Your task to perform on an android device: uninstall "Cash App" Image 0: 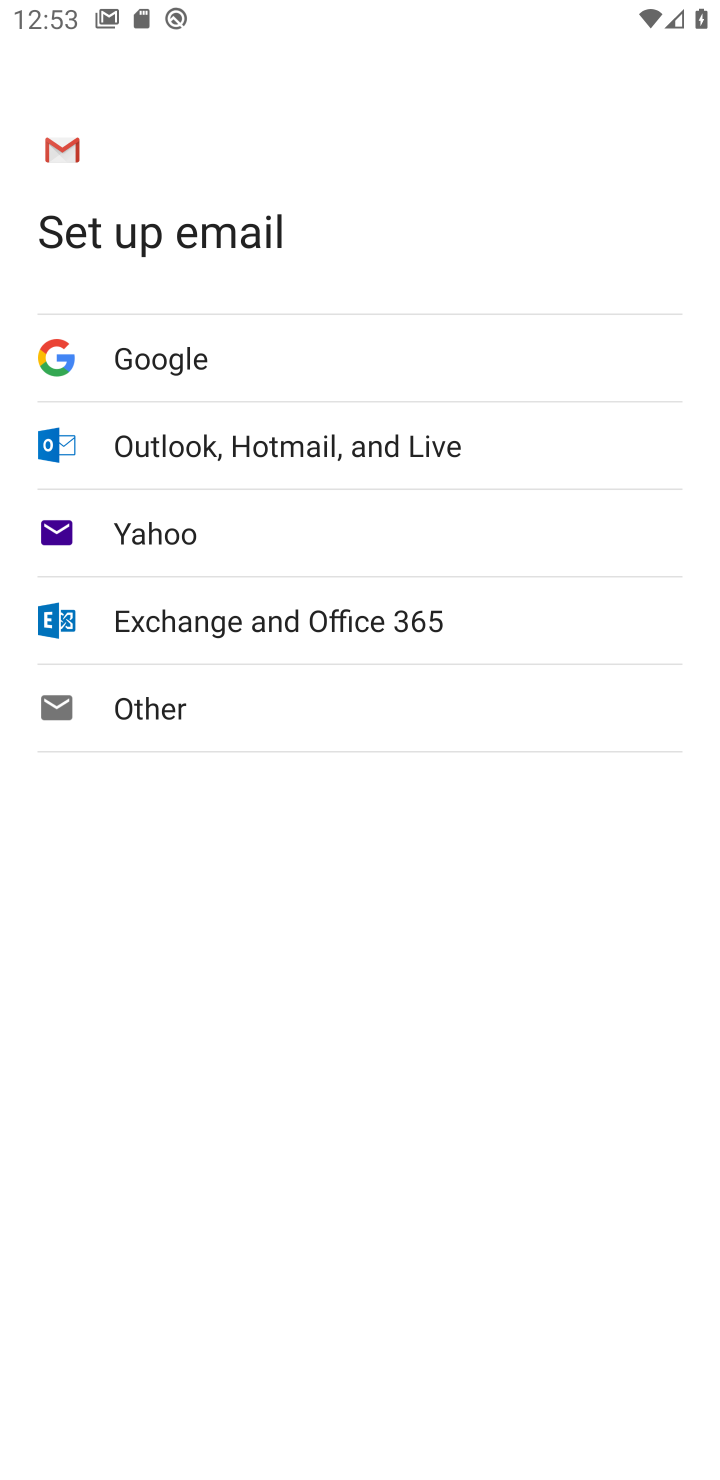
Step 0: press home button
Your task to perform on an android device: uninstall "Cash App" Image 1: 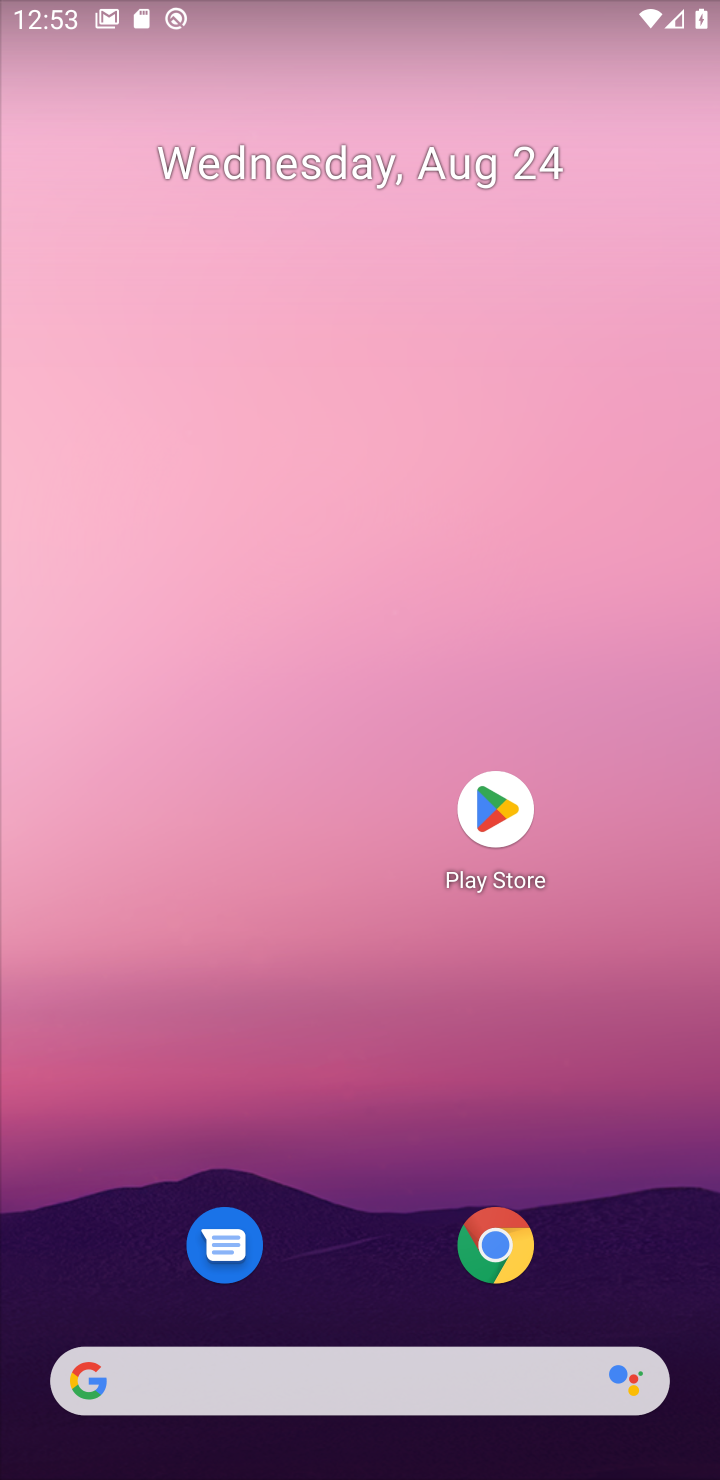
Step 1: click (483, 799)
Your task to perform on an android device: uninstall "Cash App" Image 2: 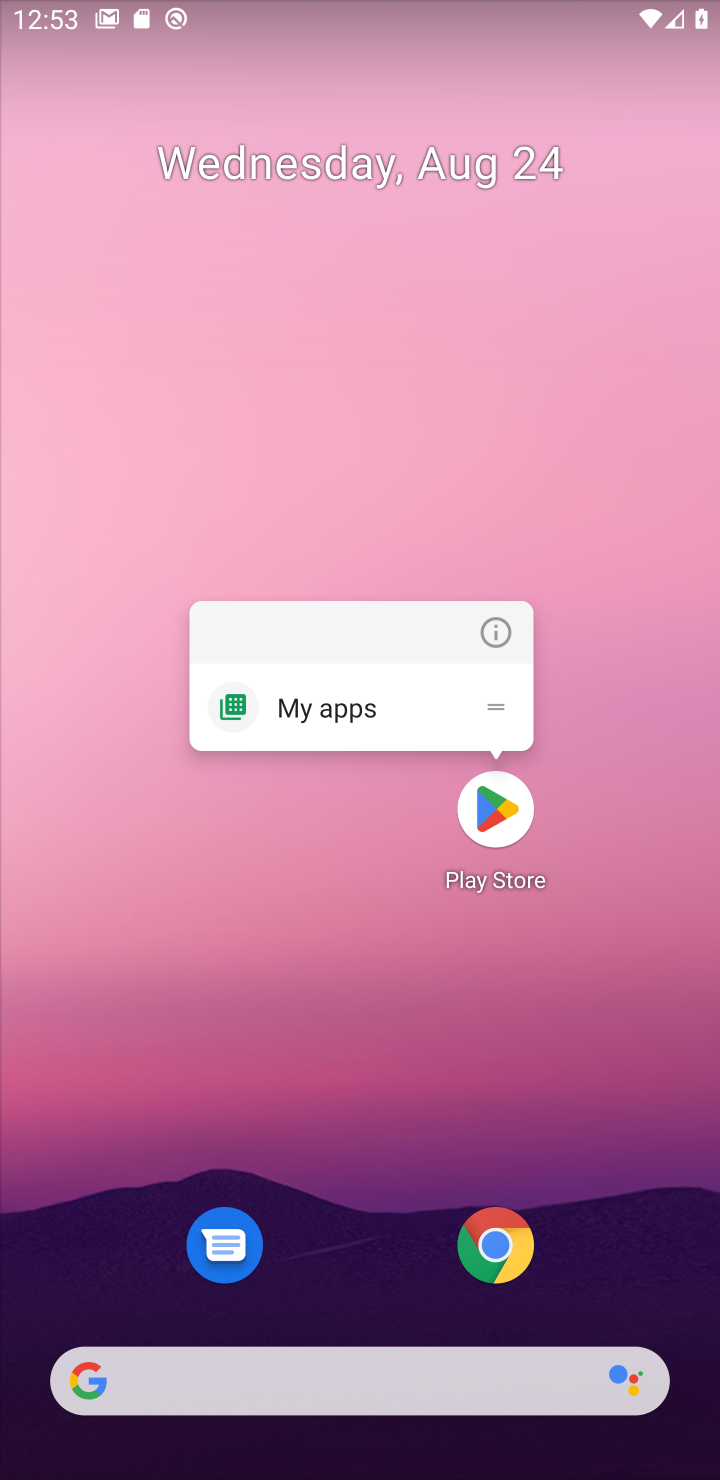
Step 2: click (485, 810)
Your task to perform on an android device: uninstall "Cash App" Image 3: 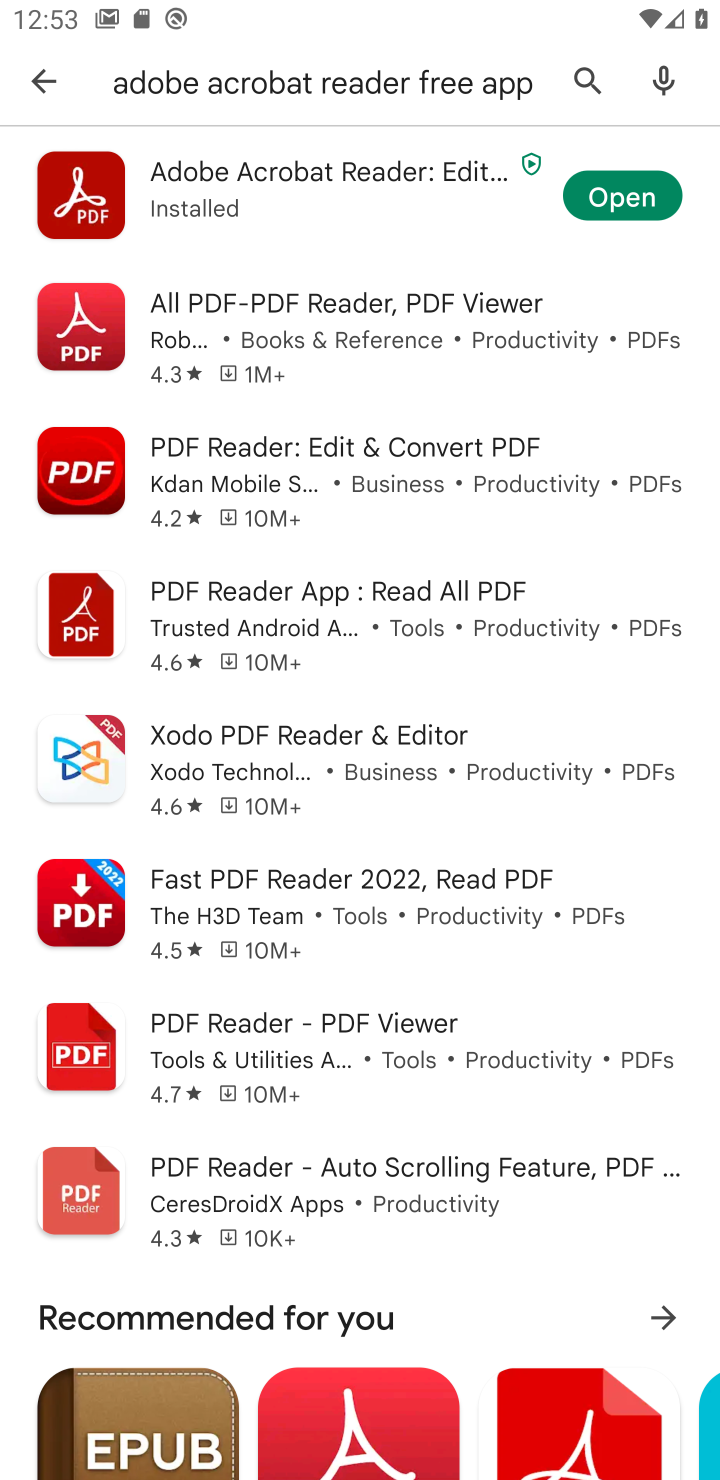
Step 3: click (586, 76)
Your task to perform on an android device: uninstall "Cash App" Image 4: 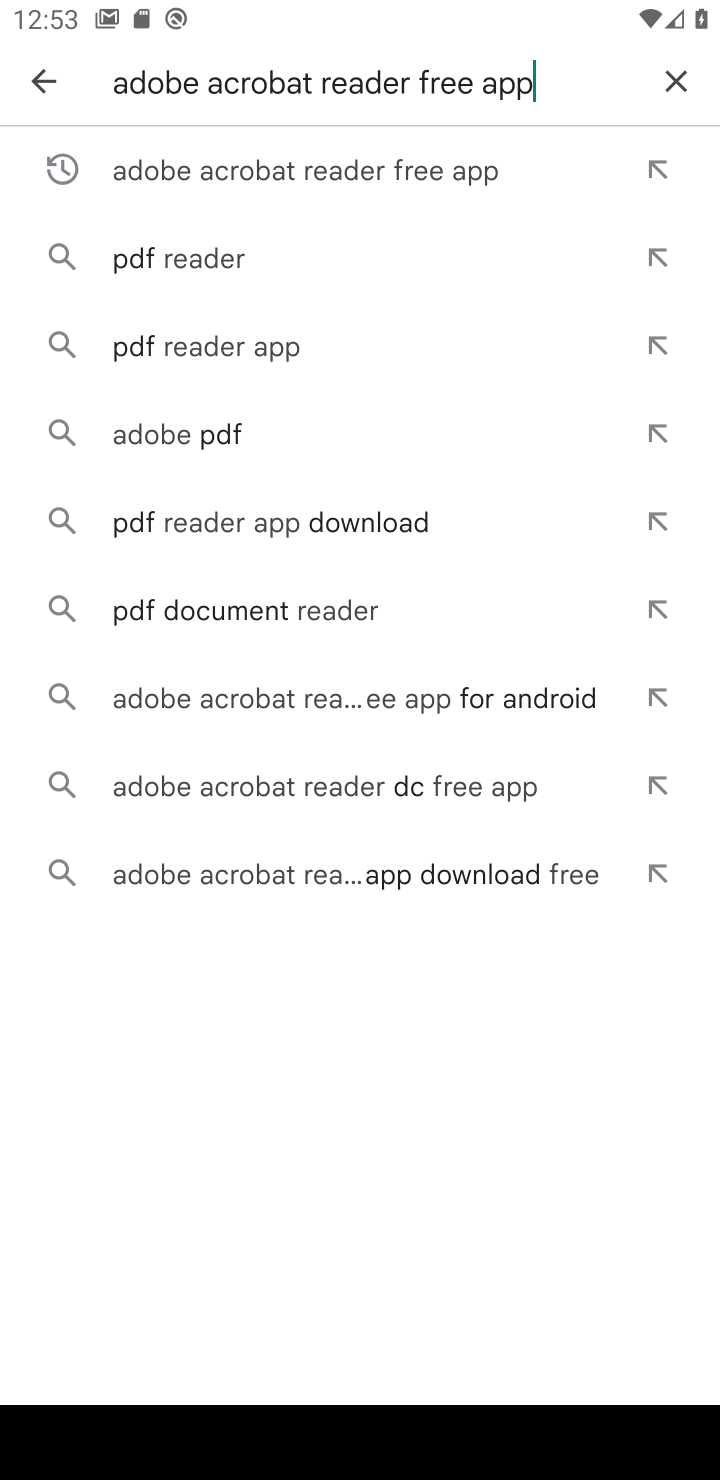
Step 4: click (684, 73)
Your task to perform on an android device: uninstall "Cash App" Image 5: 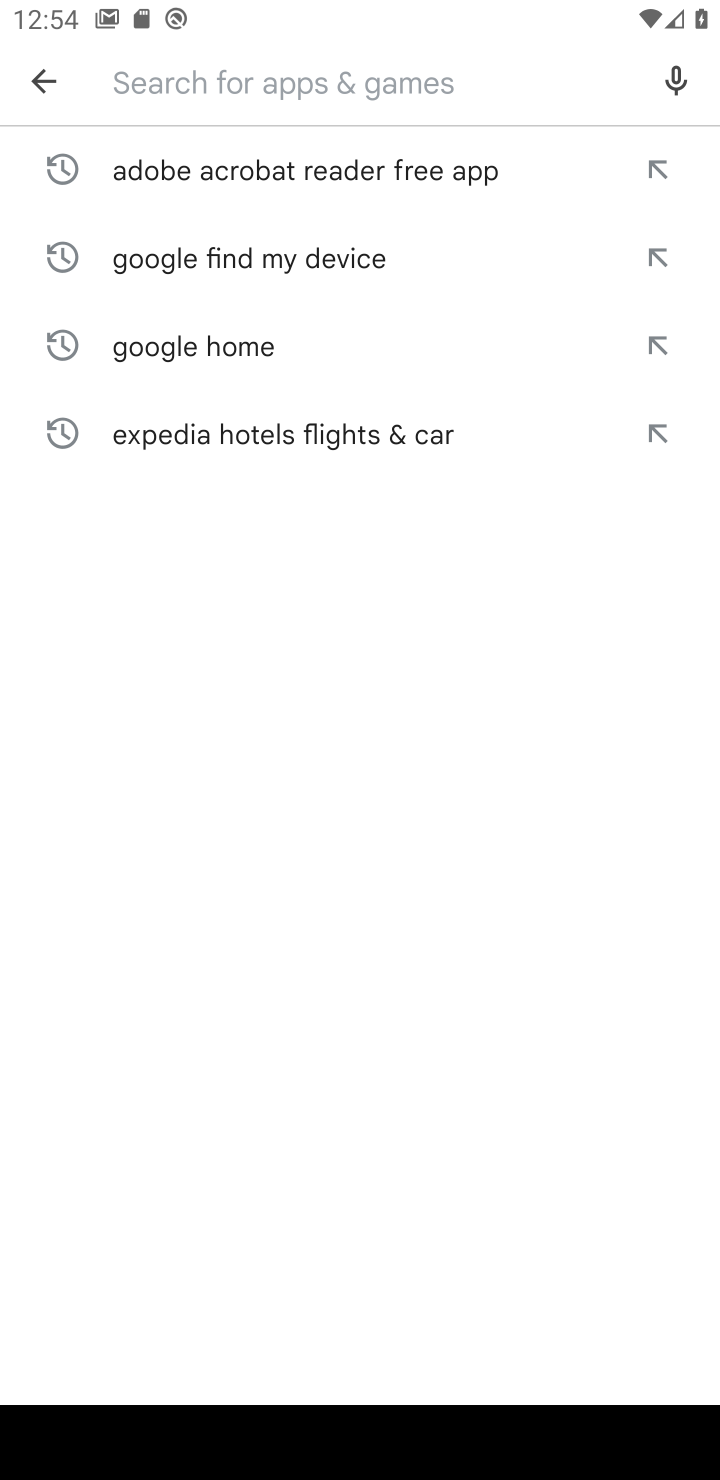
Step 5: type "Cash App"
Your task to perform on an android device: uninstall "Cash App" Image 6: 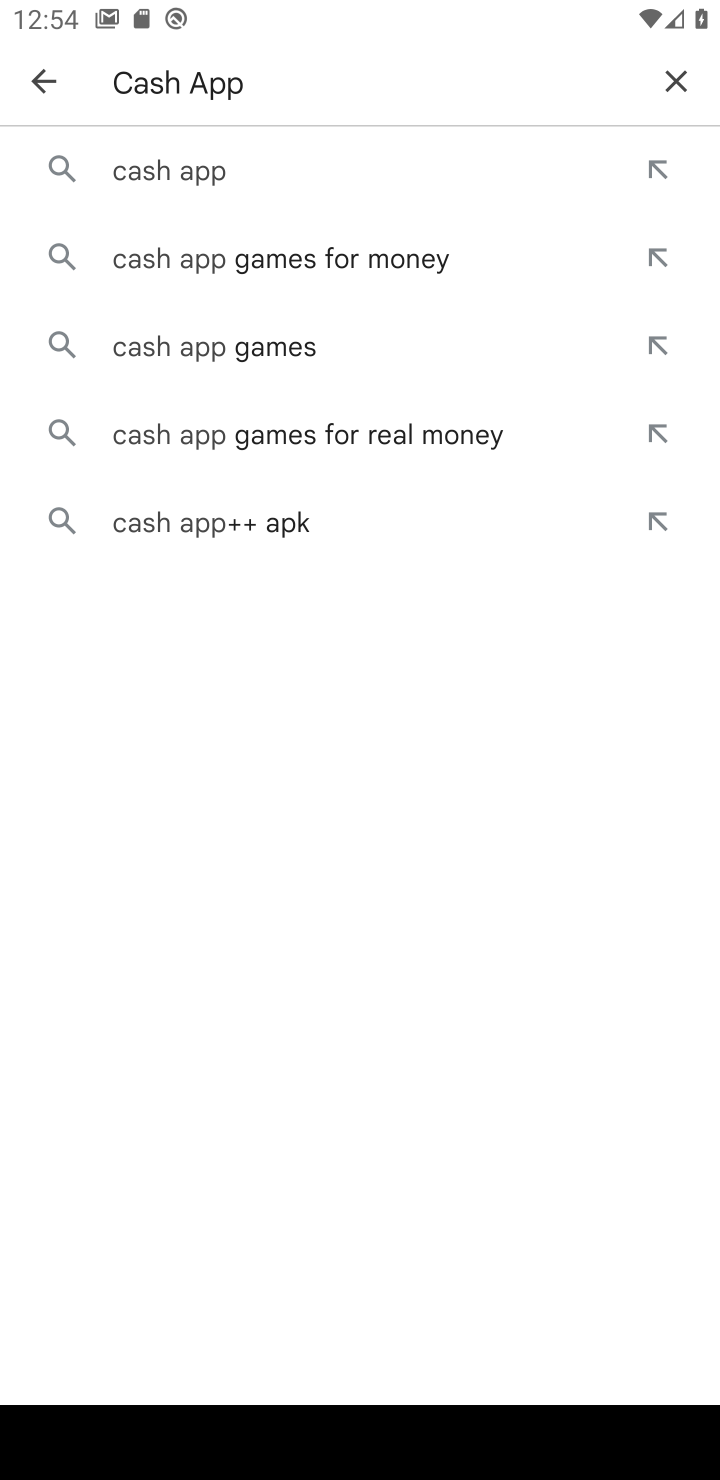
Step 6: click (194, 183)
Your task to perform on an android device: uninstall "Cash App" Image 7: 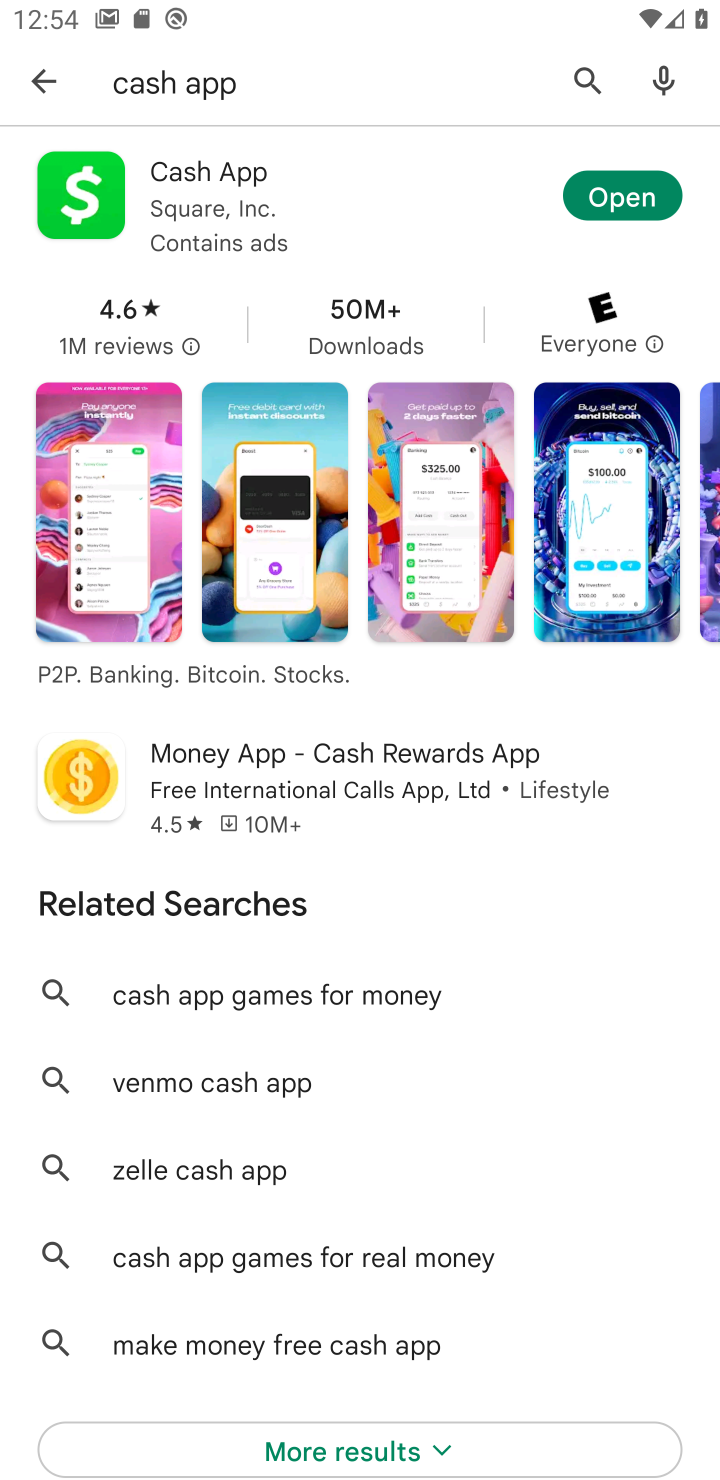
Step 7: click (198, 169)
Your task to perform on an android device: uninstall "Cash App" Image 8: 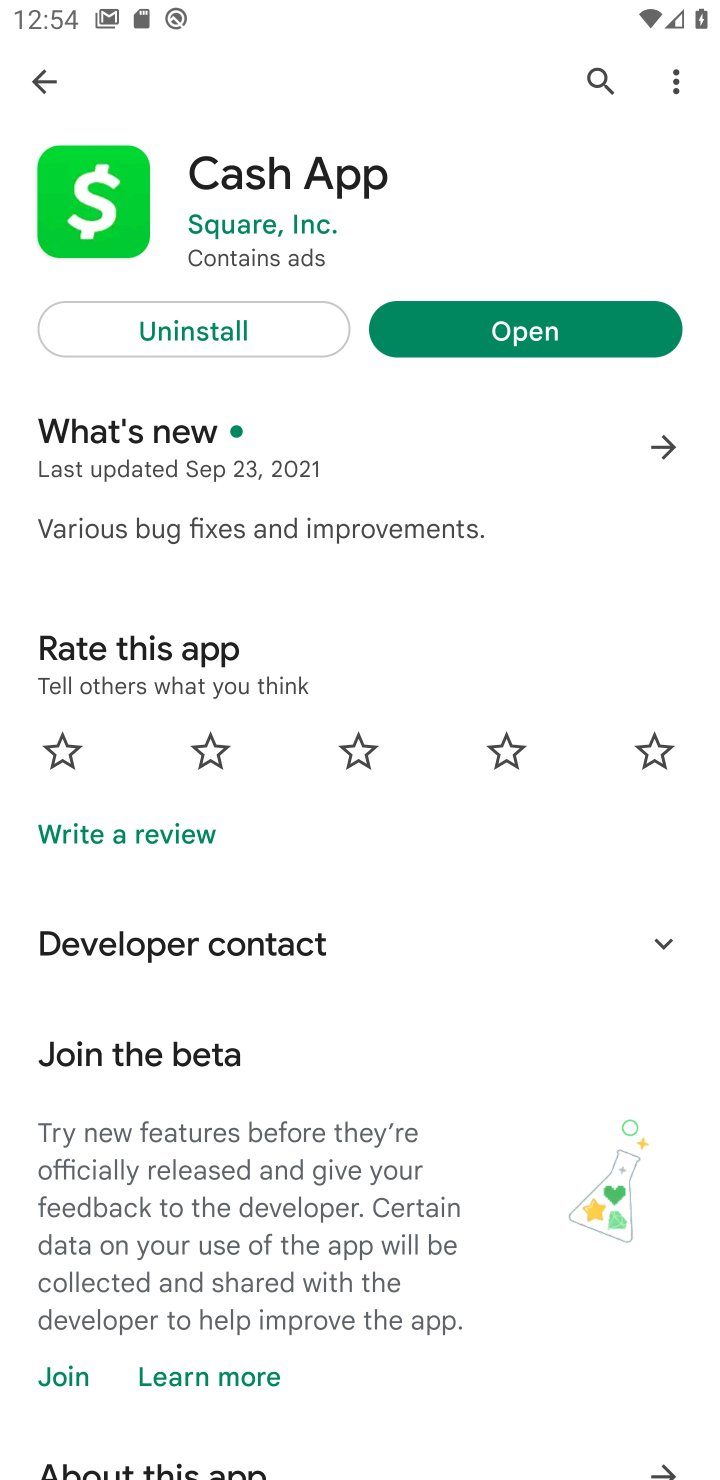
Step 8: click (244, 332)
Your task to perform on an android device: uninstall "Cash App" Image 9: 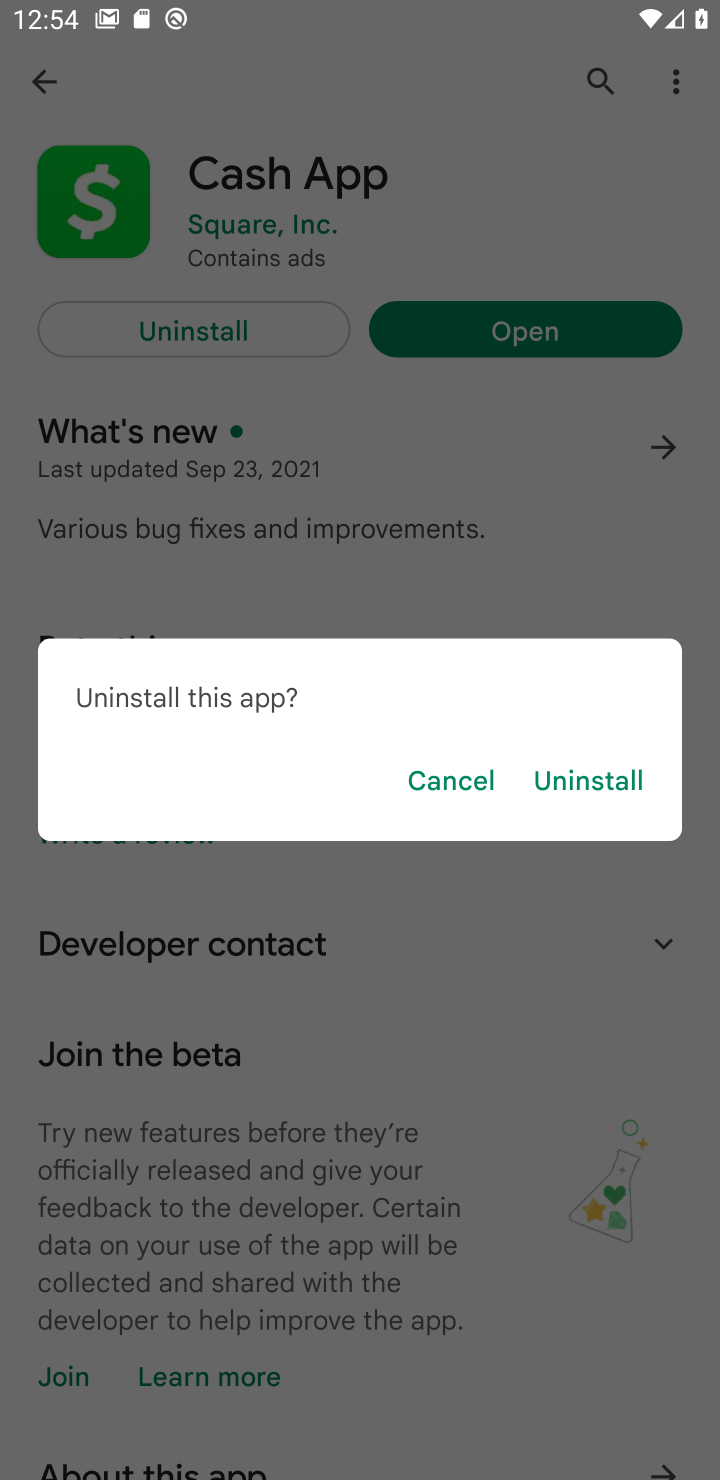
Step 9: click (557, 782)
Your task to perform on an android device: uninstall "Cash App" Image 10: 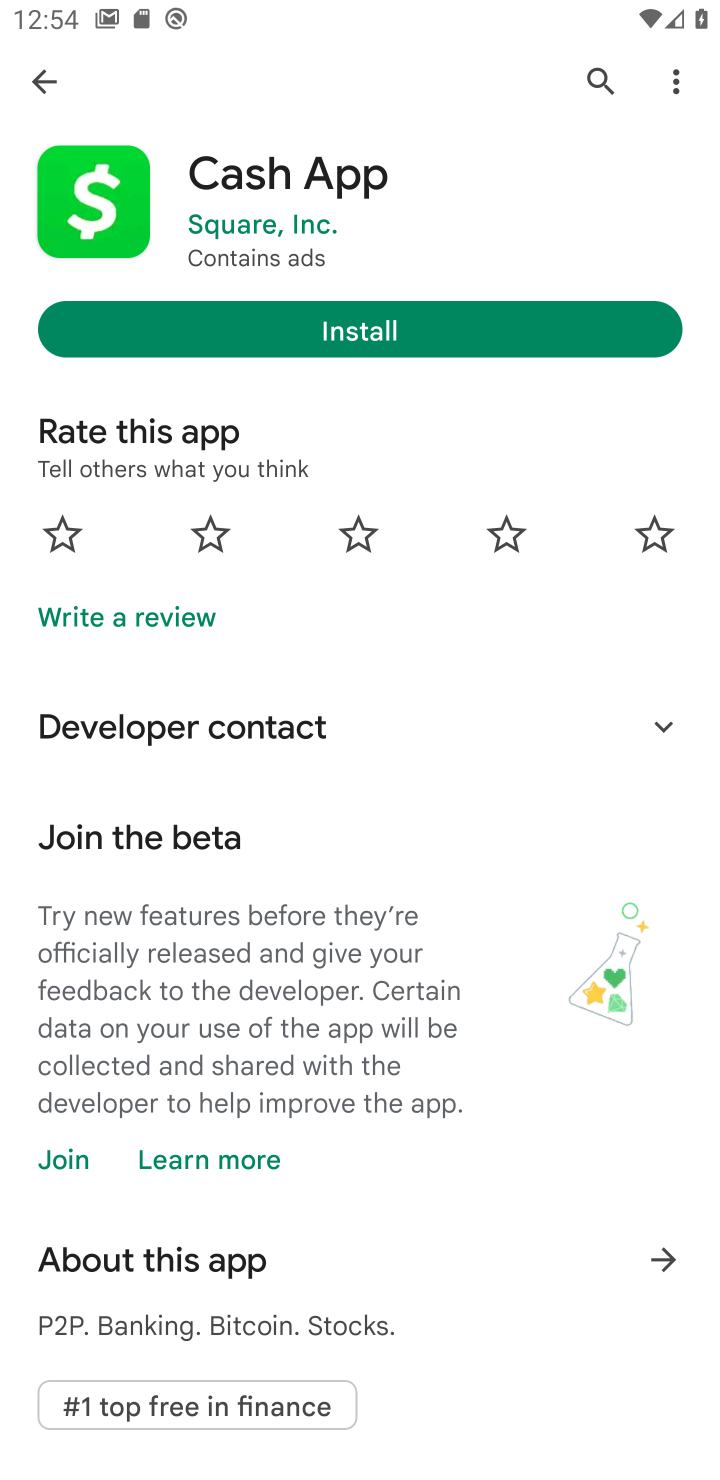
Step 10: task complete